Your task to perform on an android device: turn off notifications settings in the gmail app Image 0: 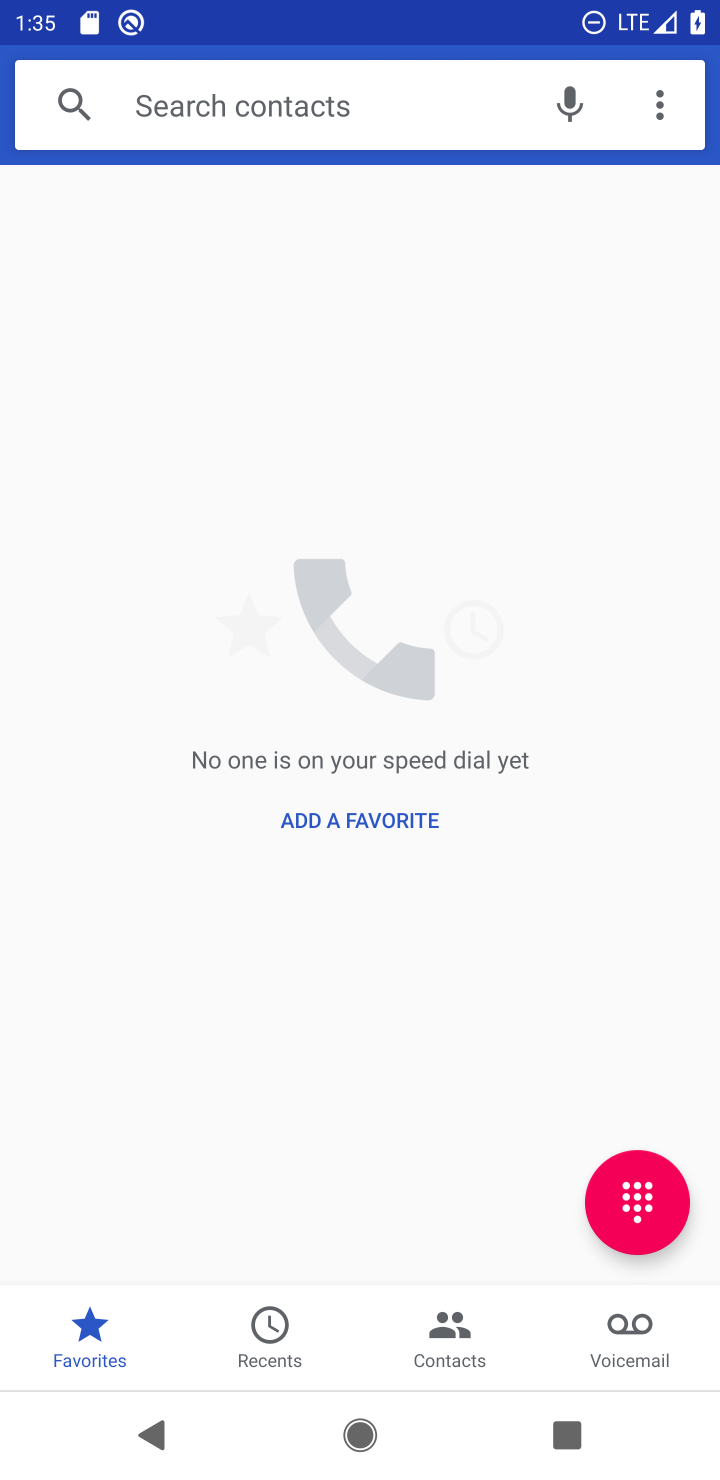
Step 0: press home button
Your task to perform on an android device: turn off notifications settings in the gmail app Image 1: 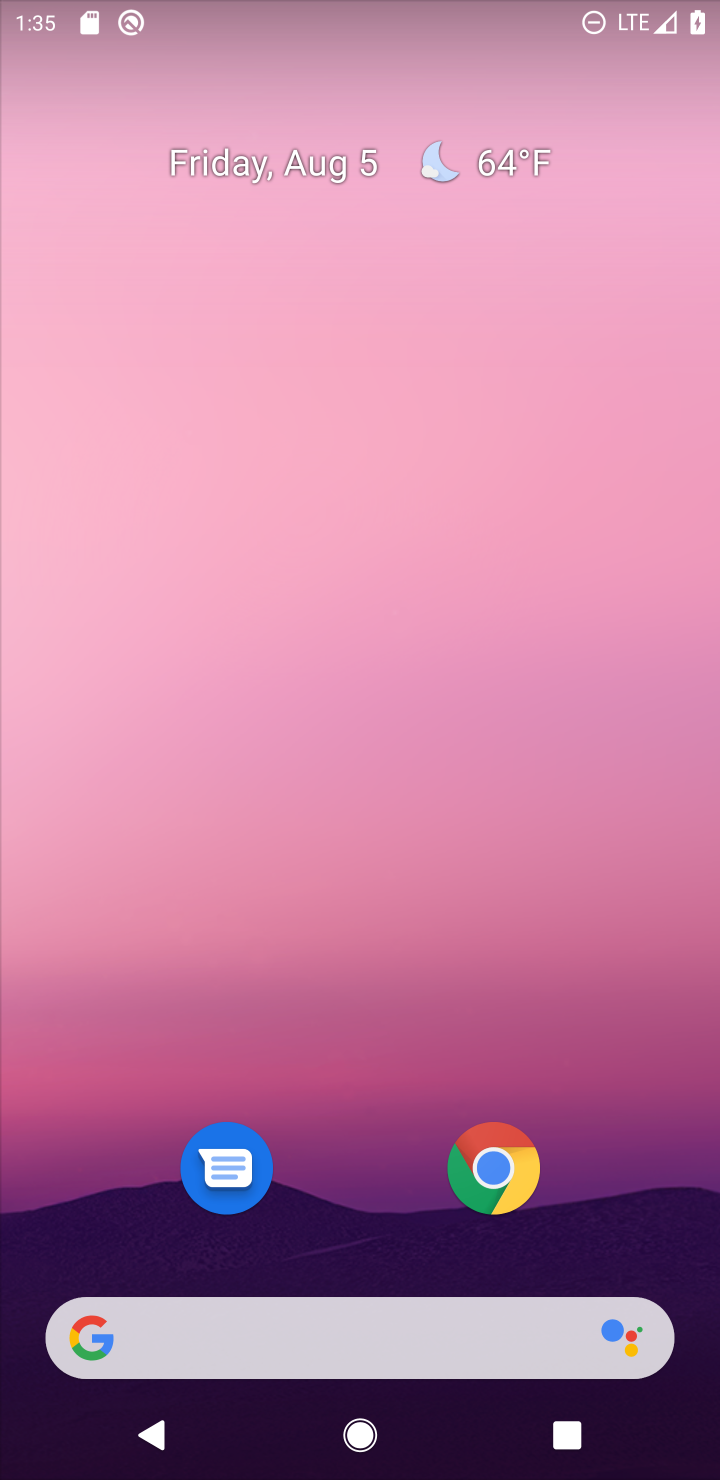
Step 1: drag from (617, 1130) to (446, 707)
Your task to perform on an android device: turn off notifications settings in the gmail app Image 2: 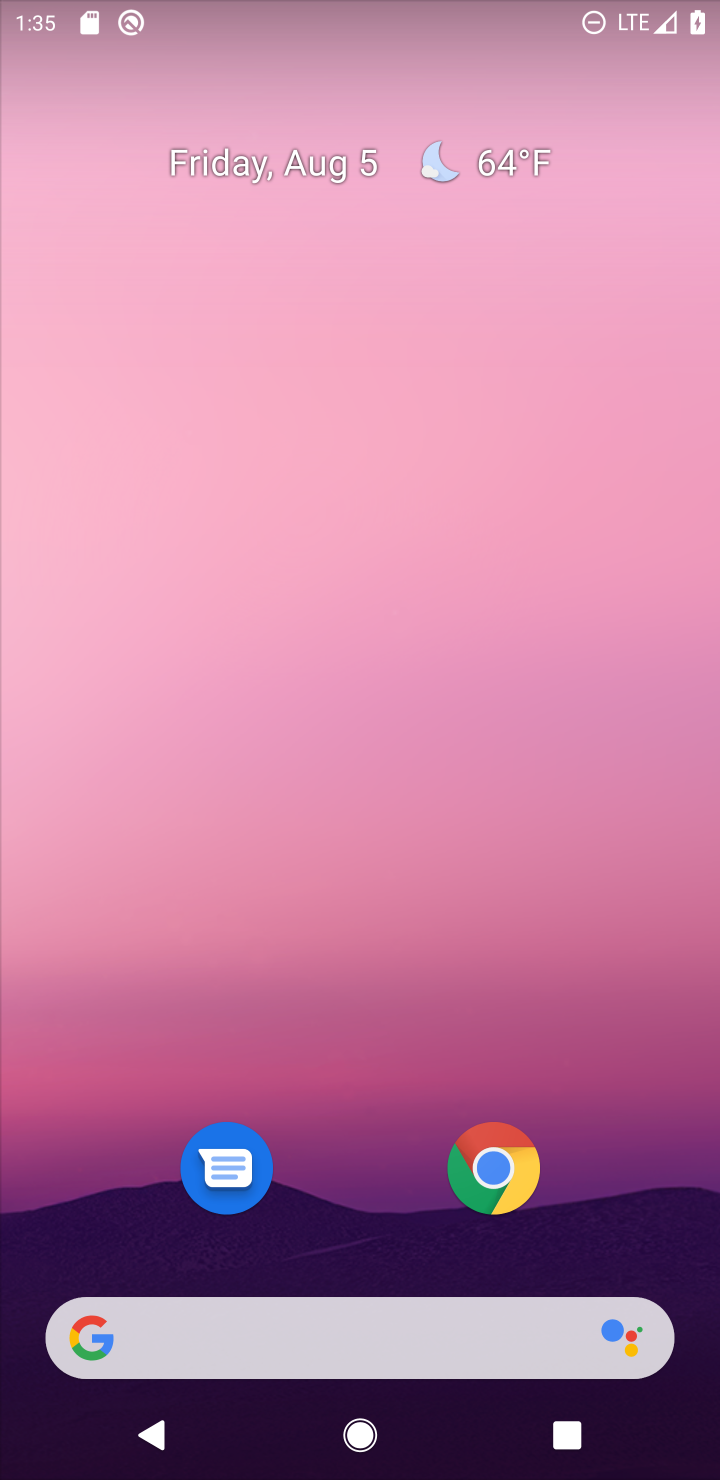
Step 2: drag from (606, 1162) to (483, 511)
Your task to perform on an android device: turn off notifications settings in the gmail app Image 3: 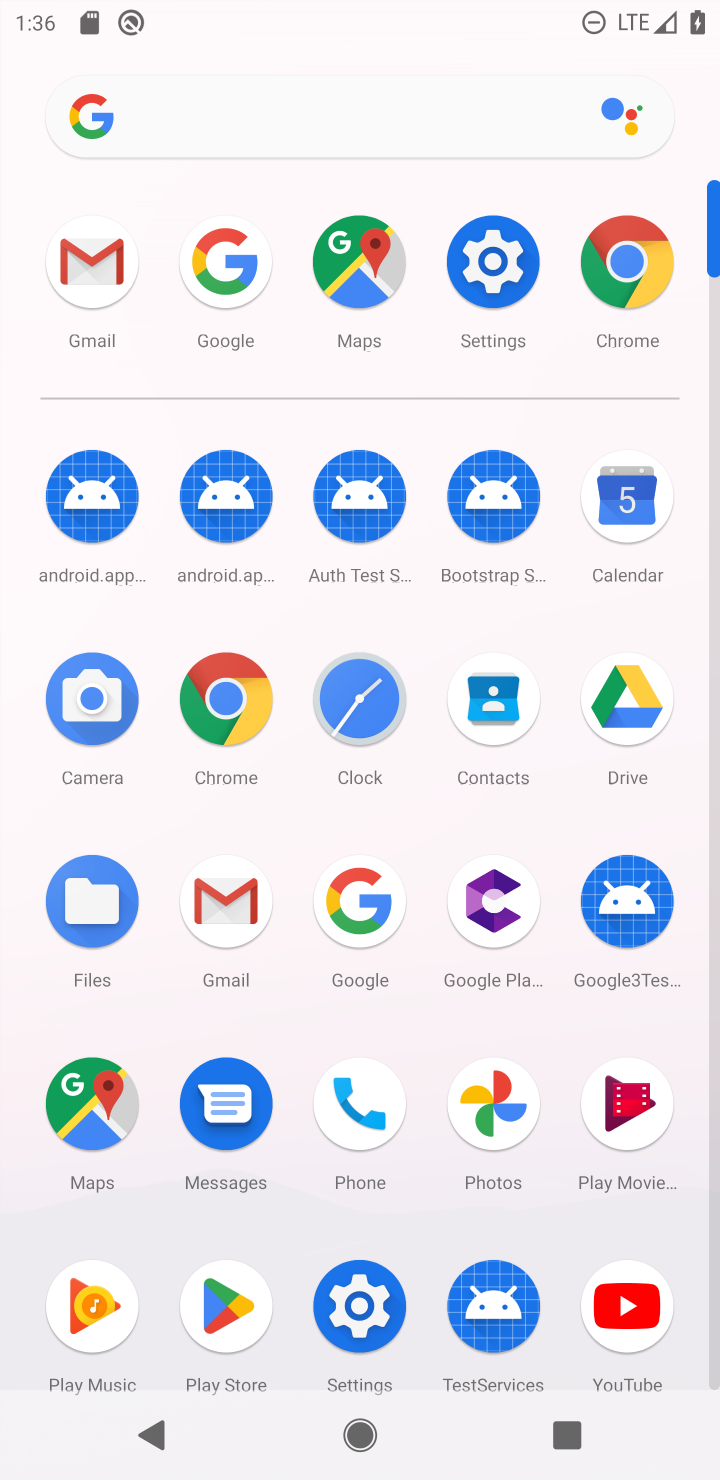
Step 3: click (224, 908)
Your task to perform on an android device: turn off notifications settings in the gmail app Image 4: 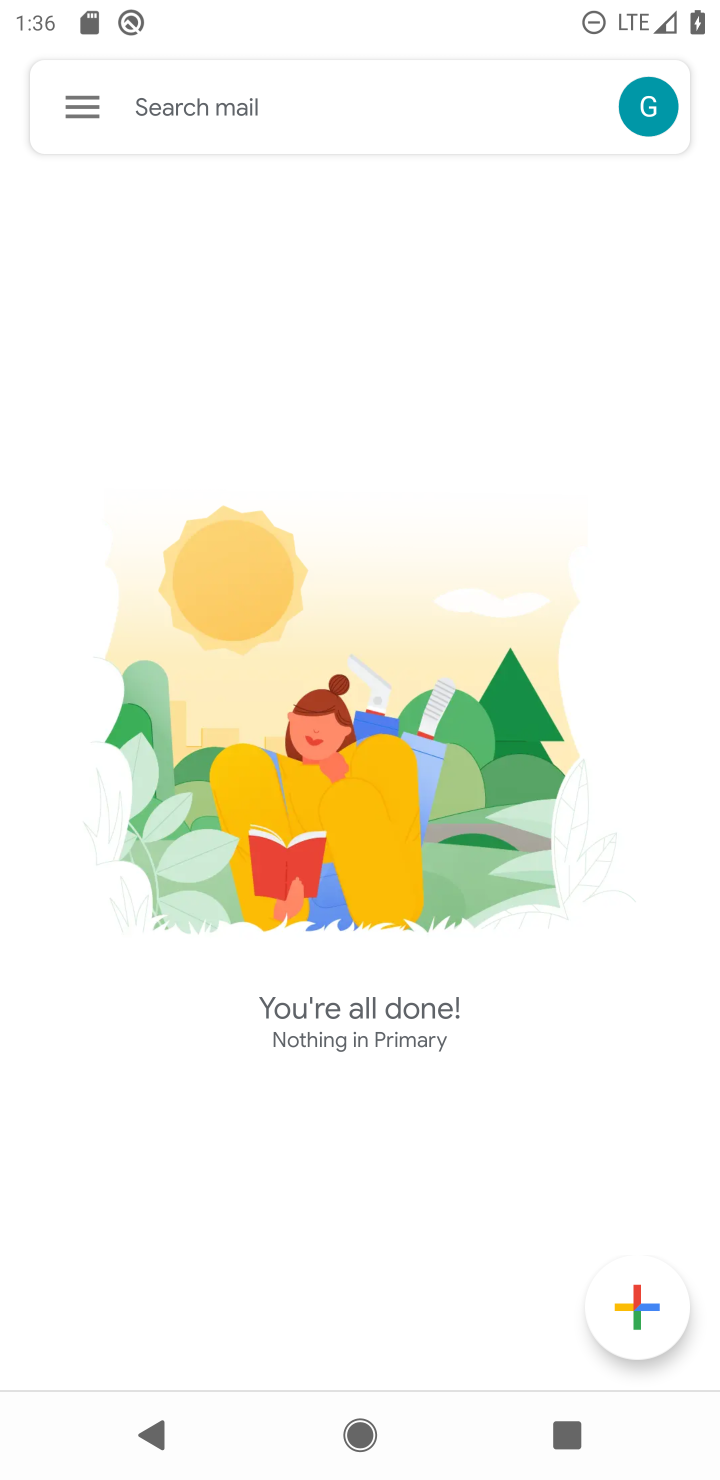
Step 4: click (75, 106)
Your task to perform on an android device: turn off notifications settings in the gmail app Image 5: 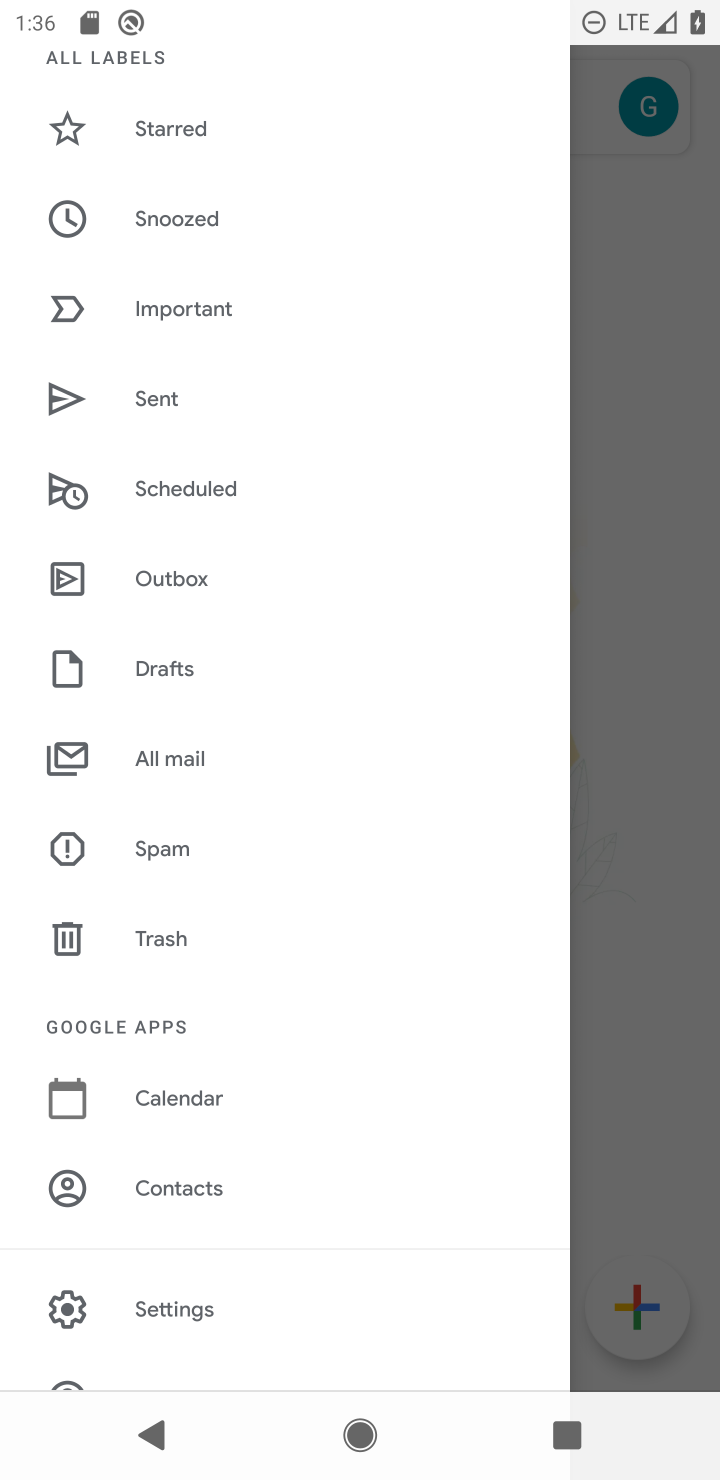
Step 5: drag from (255, 1198) to (246, 216)
Your task to perform on an android device: turn off notifications settings in the gmail app Image 6: 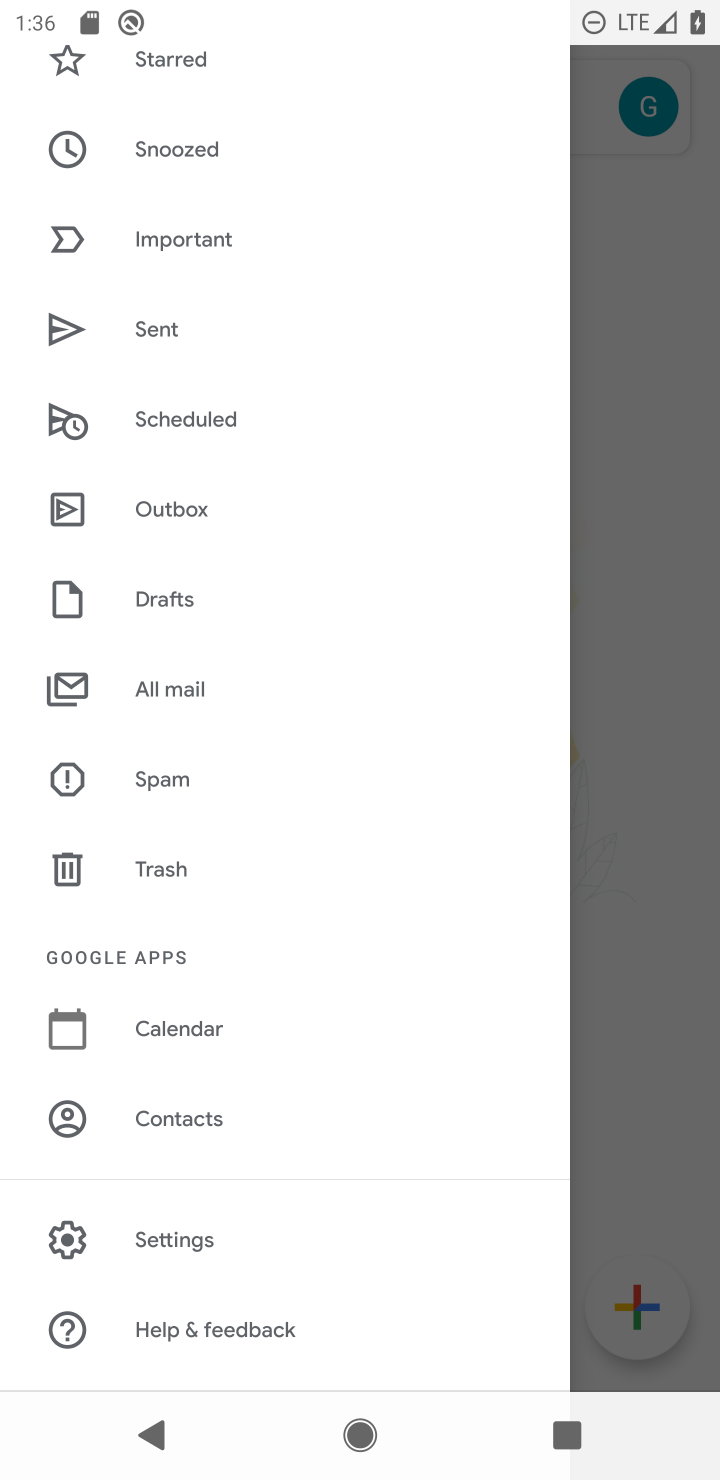
Step 6: click (202, 1256)
Your task to perform on an android device: turn off notifications settings in the gmail app Image 7: 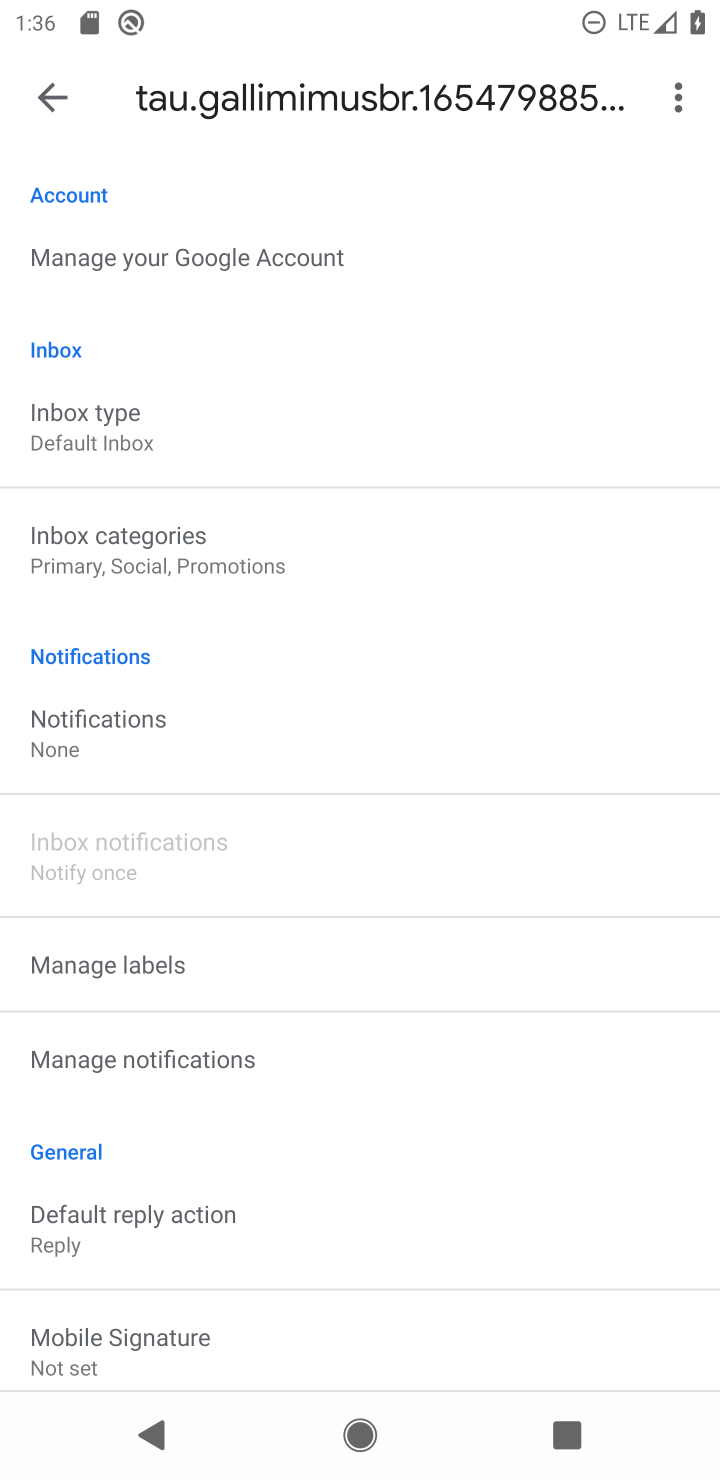
Step 7: click (176, 744)
Your task to perform on an android device: turn off notifications settings in the gmail app Image 8: 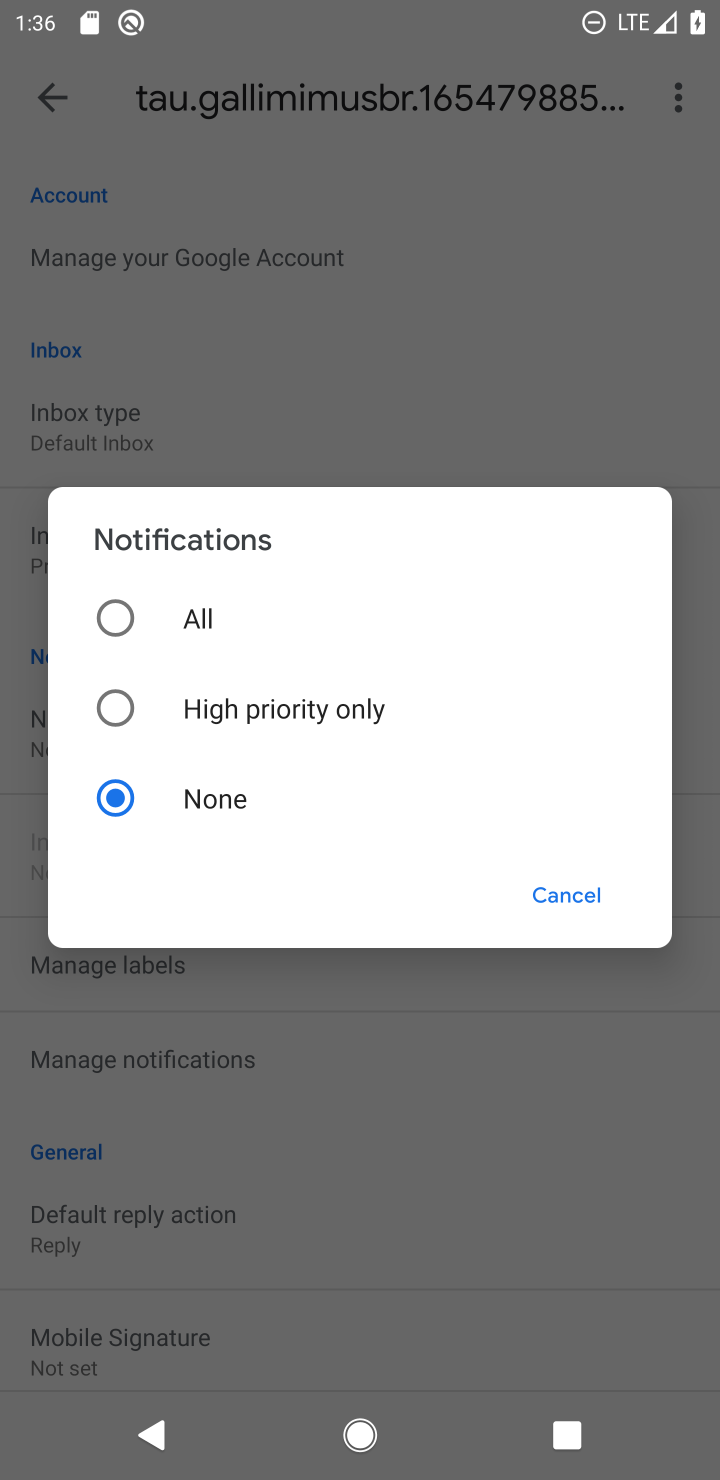
Step 8: click (185, 792)
Your task to perform on an android device: turn off notifications settings in the gmail app Image 9: 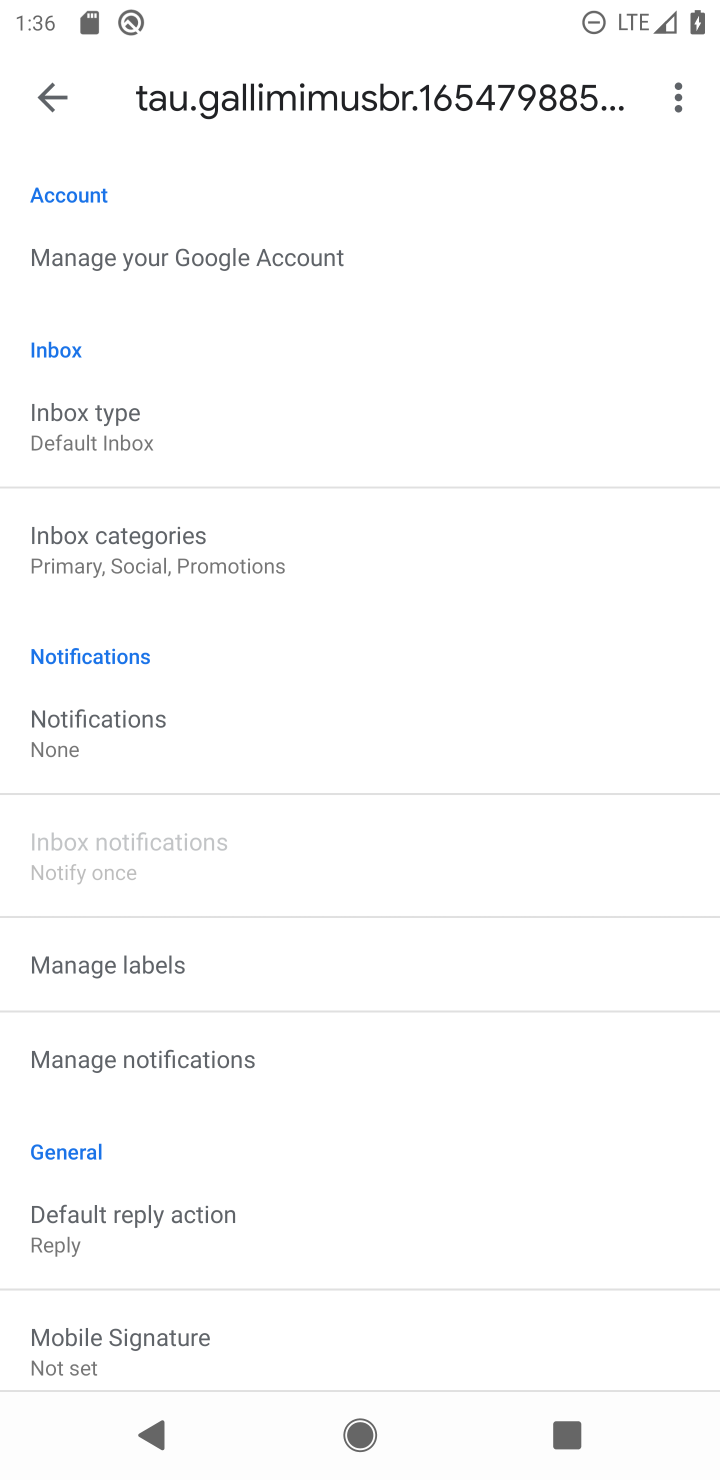
Step 9: task complete